Your task to perform on an android device: Search for seafood restaurants on Google Maps Image 0: 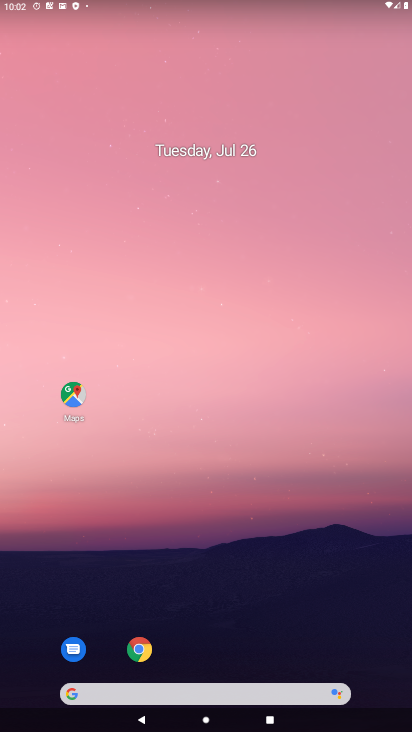
Step 0: drag from (204, 674) to (267, 16)
Your task to perform on an android device: Search for seafood restaurants on Google Maps Image 1: 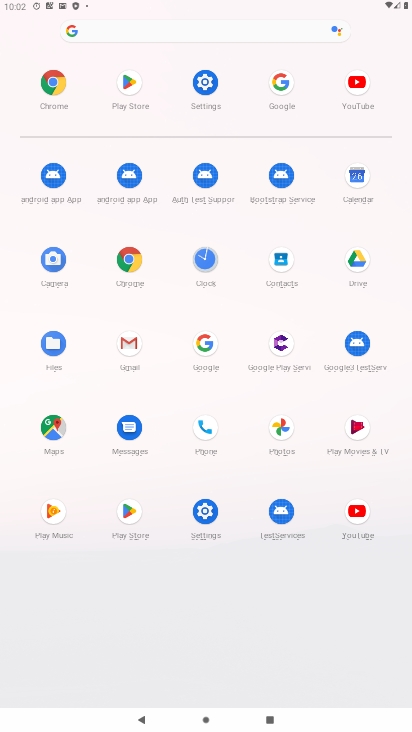
Step 1: click (51, 428)
Your task to perform on an android device: Search for seafood restaurants on Google Maps Image 2: 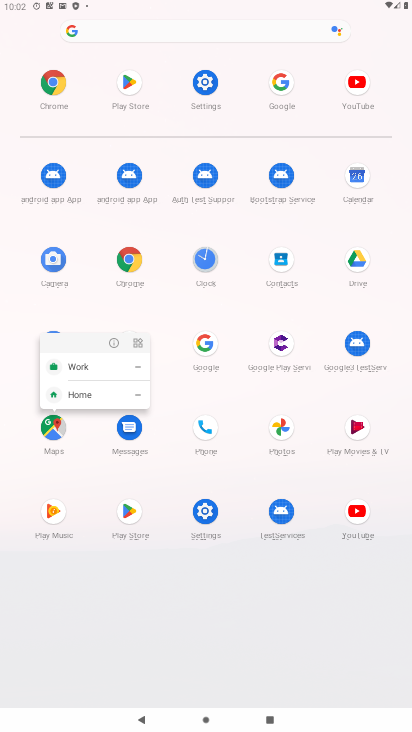
Step 2: click (113, 336)
Your task to perform on an android device: Search for seafood restaurants on Google Maps Image 3: 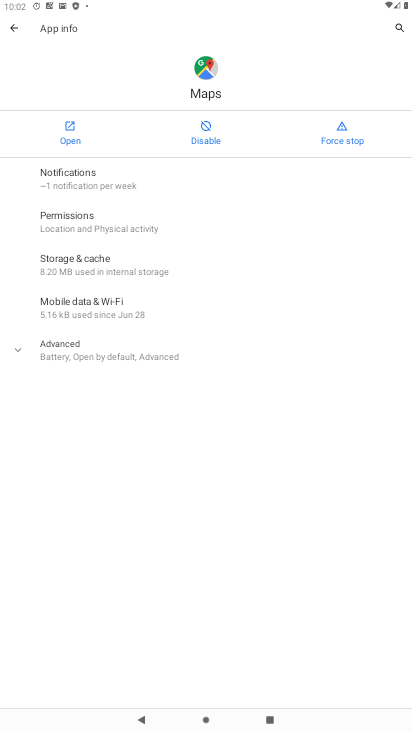
Step 3: click (48, 135)
Your task to perform on an android device: Search for seafood restaurants on Google Maps Image 4: 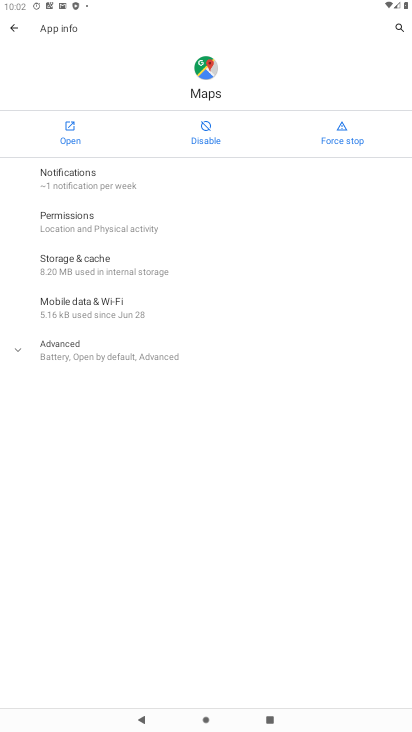
Step 4: click (75, 135)
Your task to perform on an android device: Search for seafood restaurants on Google Maps Image 5: 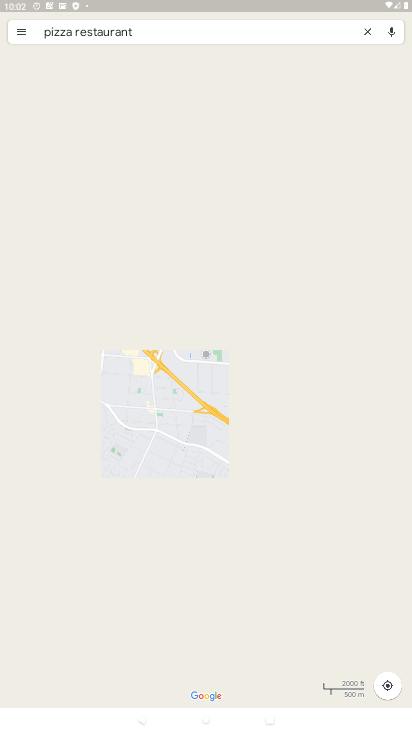
Step 5: click (363, 33)
Your task to perform on an android device: Search for seafood restaurants on Google Maps Image 6: 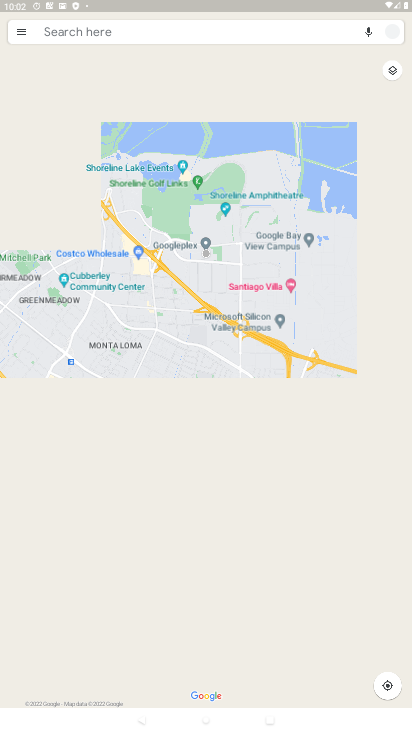
Step 6: click (199, 28)
Your task to perform on an android device: Search for seafood restaurants on Google Maps Image 7: 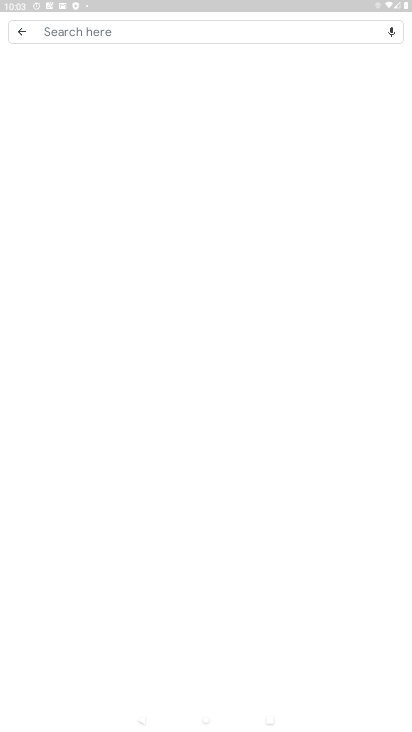
Step 7: click (78, 26)
Your task to perform on an android device: Search for seafood restaurants on Google Maps Image 8: 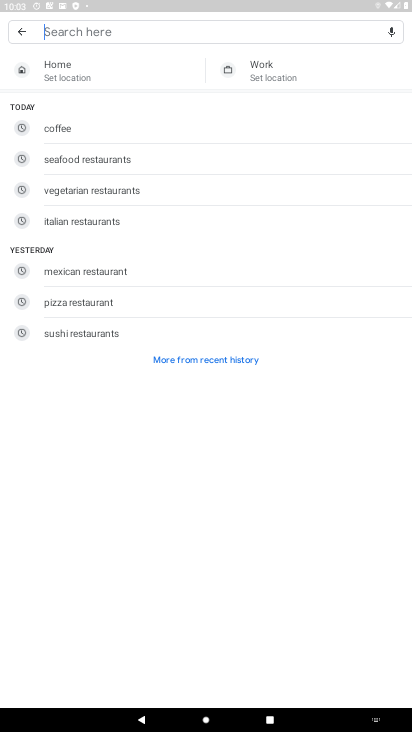
Step 8: click (79, 154)
Your task to perform on an android device: Search for seafood restaurants on Google Maps Image 9: 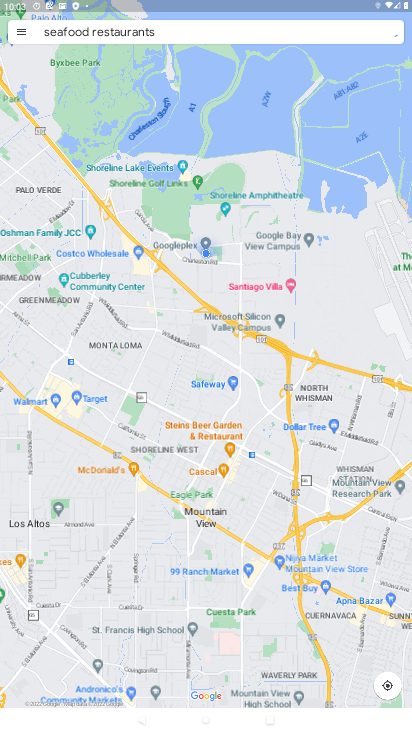
Step 9: click (212, 298)
Your task to perform on an android device: Search for seafood restaurants on Google Maps Image 10: 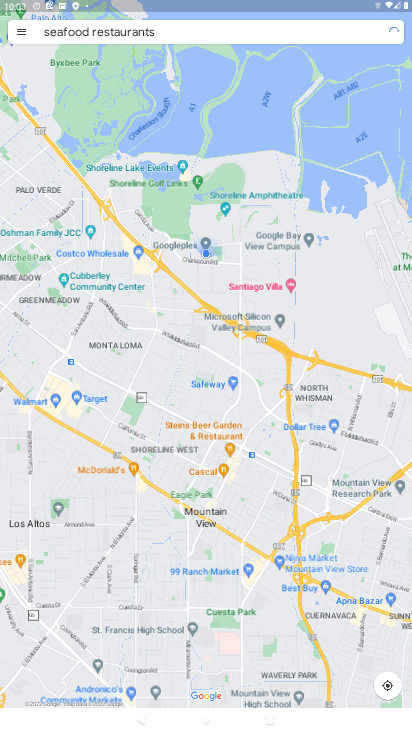
Step 10: task complete